Your task to perform on an android device: Add logitech g910 to the cart on walmart, then select checkout. Image 0: 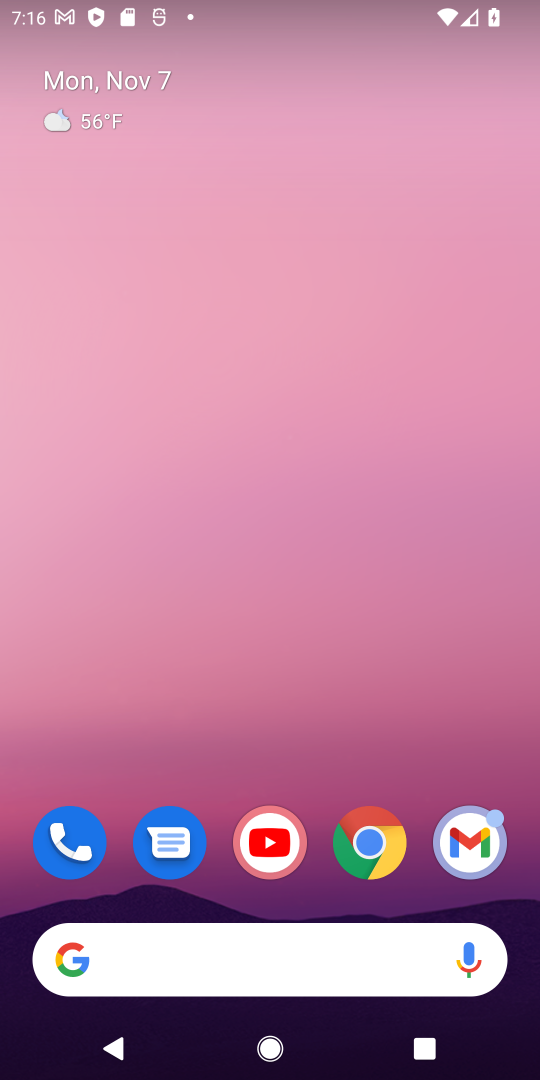
Step 0: click (371, 834)
Your task to perform on an android device: Add logitech g910 to the cart on walmart, then select checkout. Image 1: 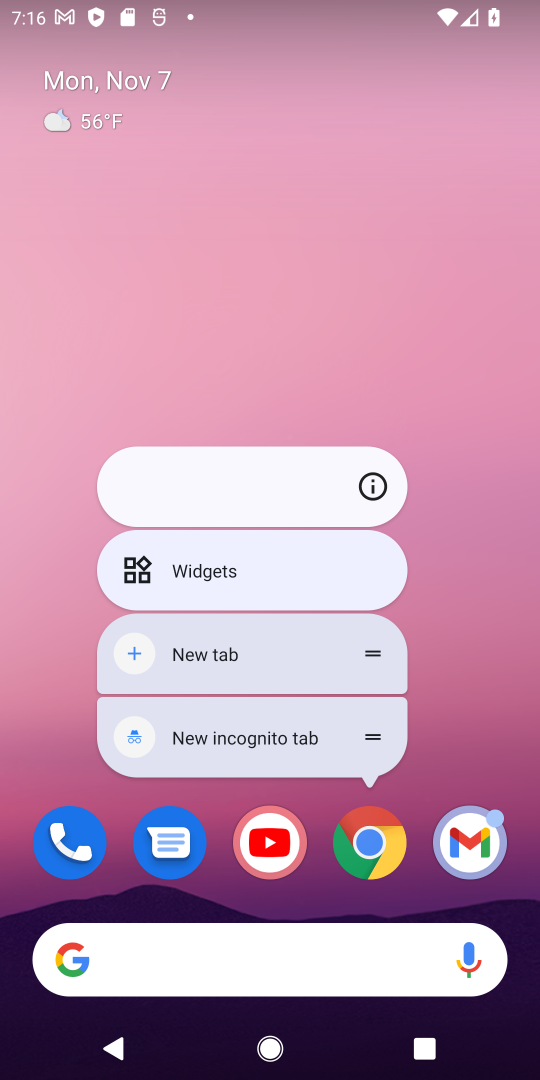
Step 1: click (368, 839)
Your task to perform on an android device: Add logitech g910 to the cart on walmart, then select checkout. Image 2: 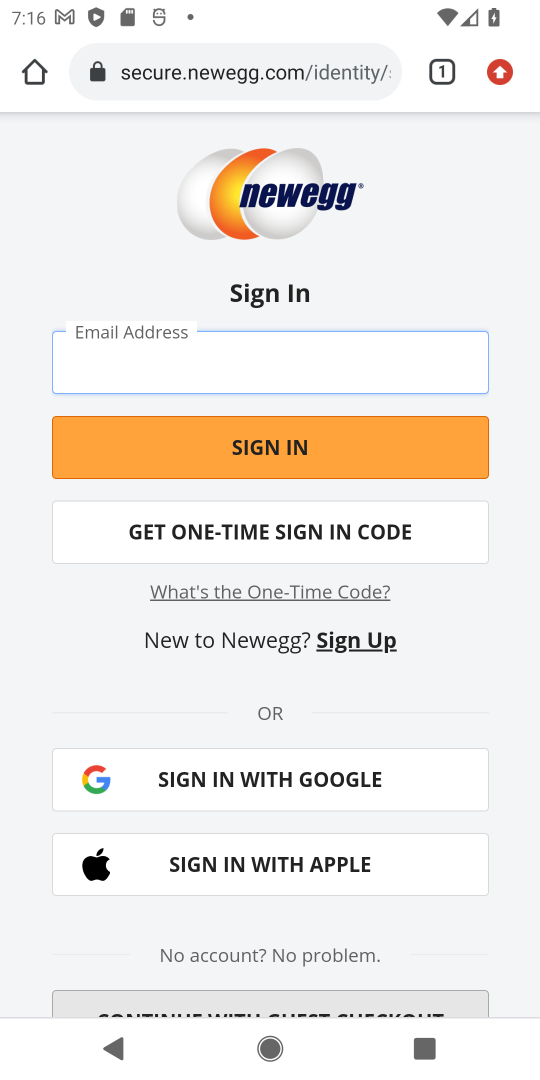
Step 2: click (278, 75)
Your task to perform on an android device: Add logitech g910 to the cart on walmart, then select checkout. Image 3: 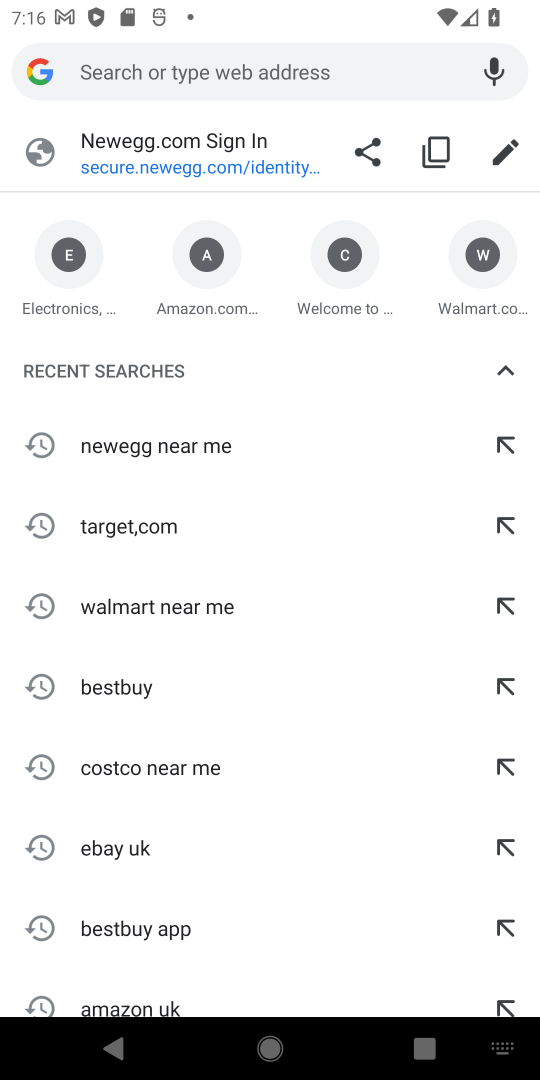
Step 3: click (489, 304)
Your task to perform on an android device: Add logitech g910 to the cart on walmart, then select checkout. Image 4: 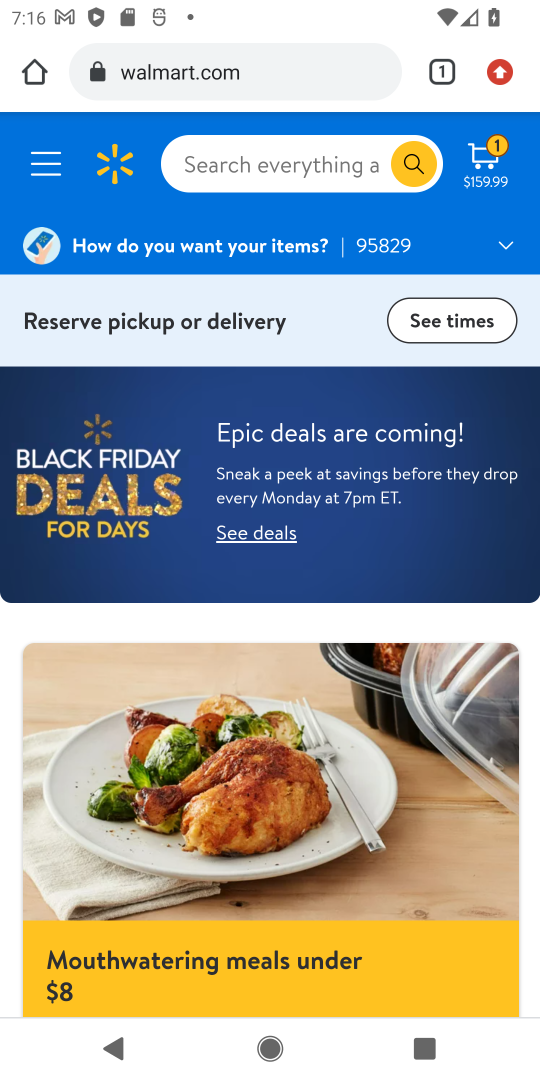
Step 4: click (253, 163)
Your task to perform on an android device: Add logitech g910 to the cart on walmart, then select checkout. Image 5: 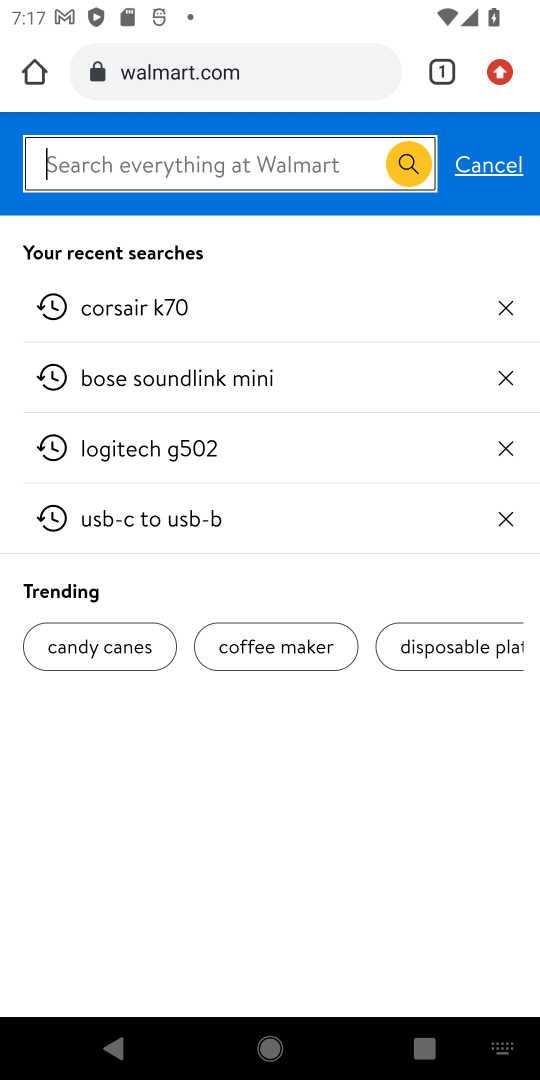
Step 5: type "logitech g910"
Your task to perform on an android device: Add logitech g910 to the cart on walmart, then select checkout. Image 6: 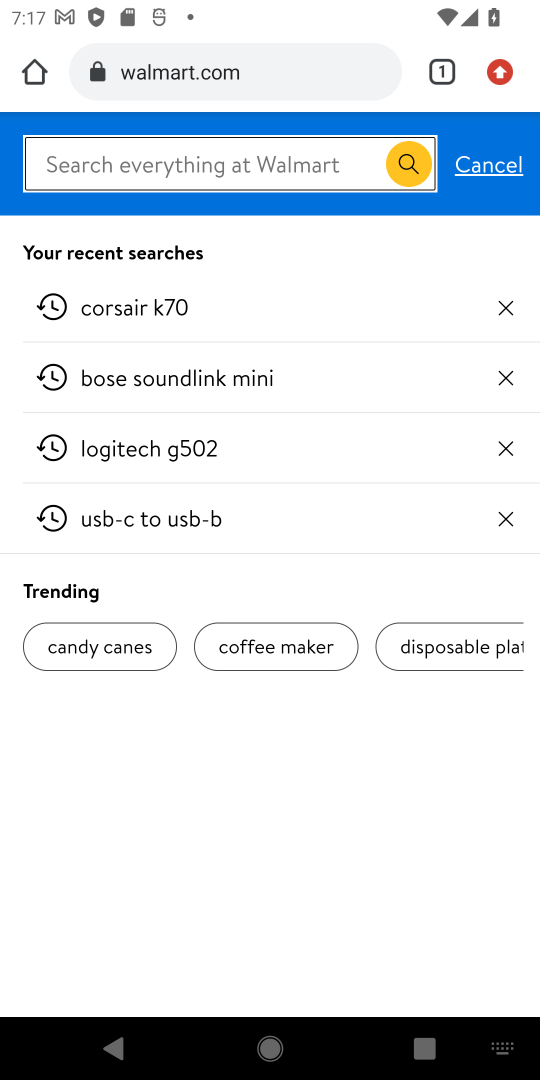
Step 6: press enter
Your task to perform on an android device: Add logitech g910 to the cart on walmart, then select checkout. Image 7: 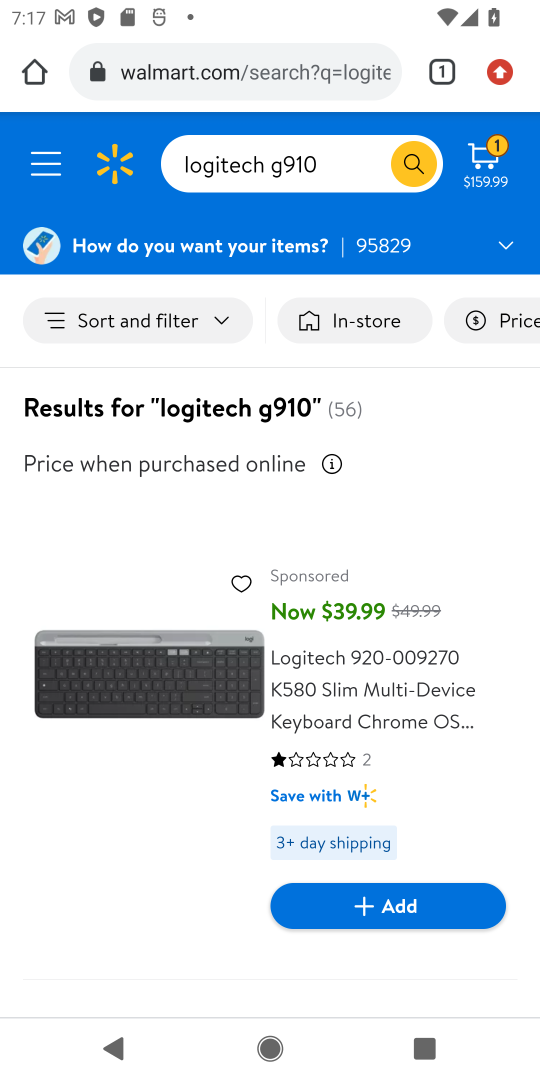
Step 7: drag from (171, 894) to (416, 518)
Your task to perform on an android device: Add logitech g910 to the cart on walmart, then select checkout. Image 8: 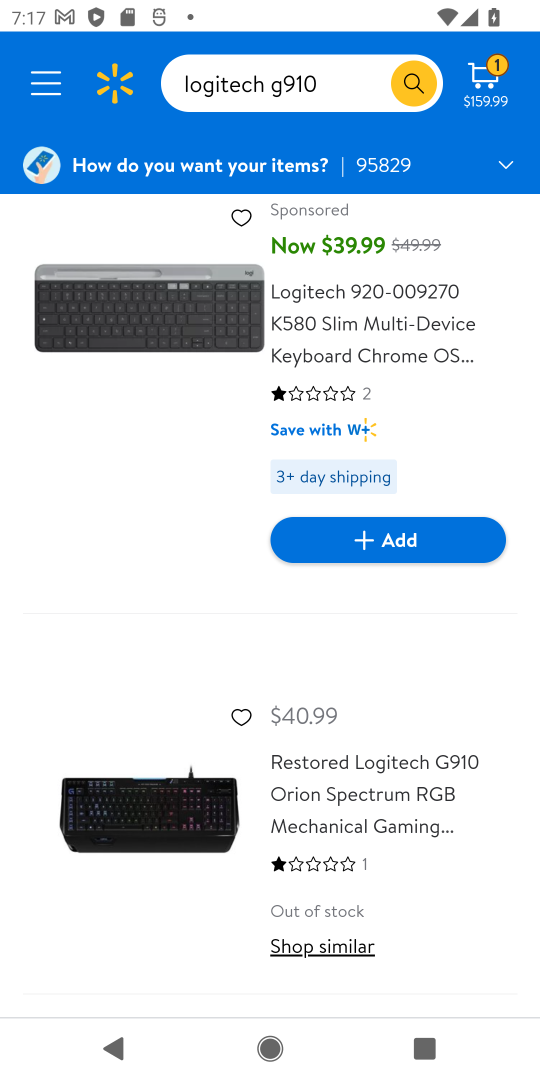
Step 8: drag from (260, 882) to (410, 652)
Your task to perform on an android device: Add logitech g910 to the cart on walmart, then select checkout. Image 9: 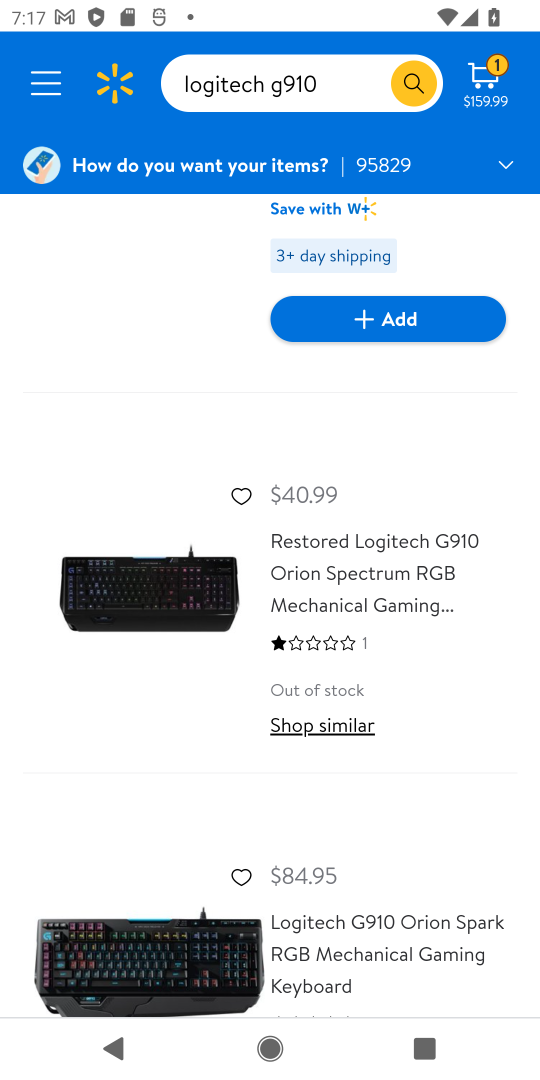
Step 9: click (344, 647)
Your task to perform on an android device: Add logitech g910 to the cart on walmart, then select checkout. Image 10: 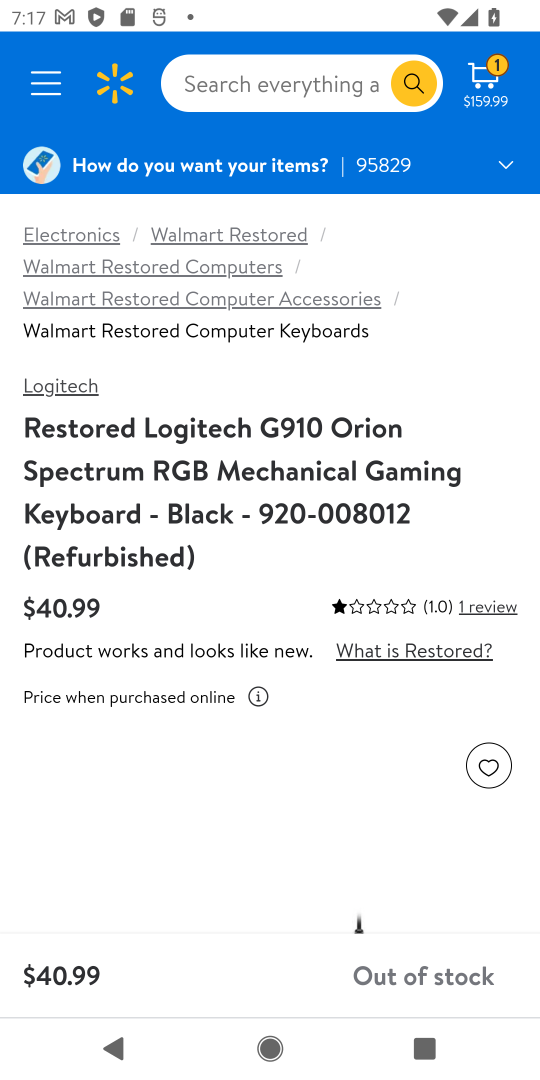
Step 10: task complete